Your task to perform on an android device: Go to Wikipedia Image 0: 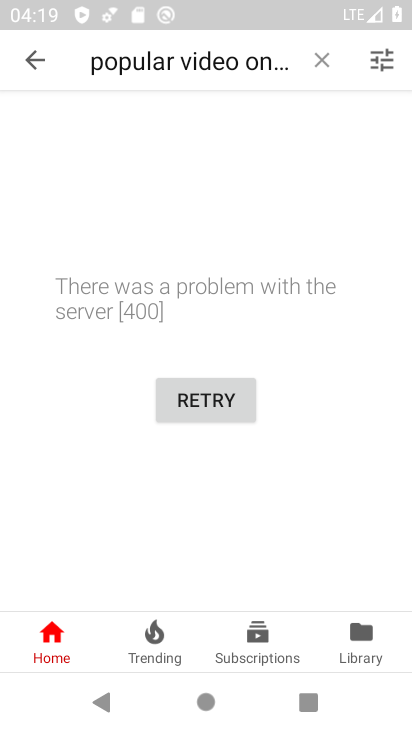
Step 0: press home button
Your task to perform on an android device: Go to Wikipedia Image 1: 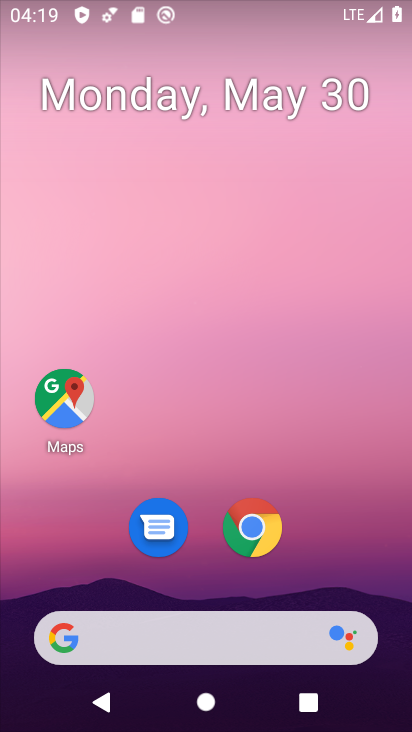
Step 1: click (250, 528)
Your task to perform on an android device: Go to Wikipedia Image 2: 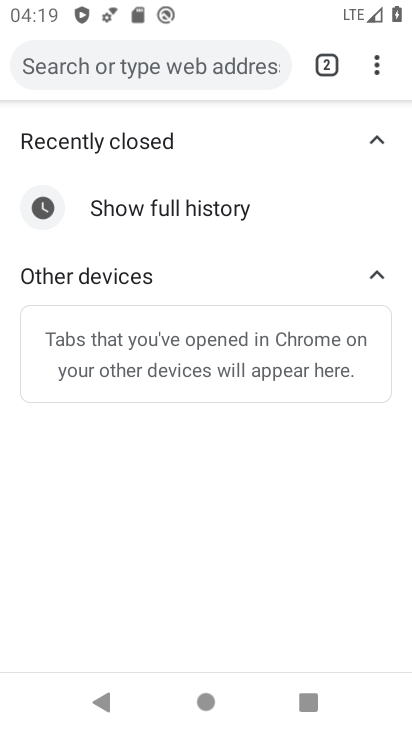
Step 2: click (378, 71)
Your task to perform on an android device: Go to Wikipedia Image 3: 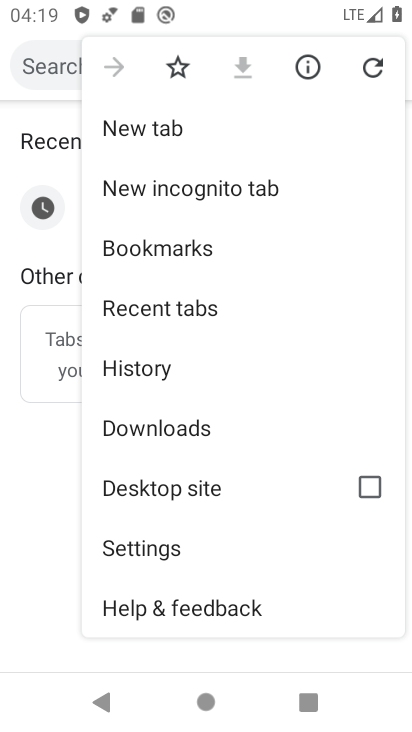
Step 3: click (142, 135)
Your task to perform on an android device: Go to Wikipedia Image 4: 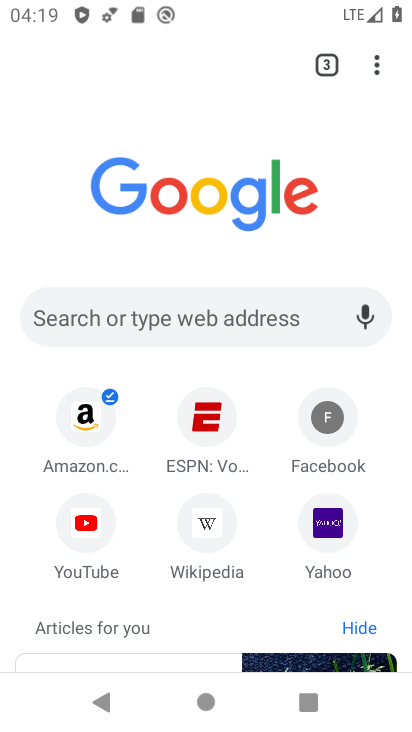
Step 4: click (206, 526)
Your task to perform on an android device: Go to Wikipedia Image 5: 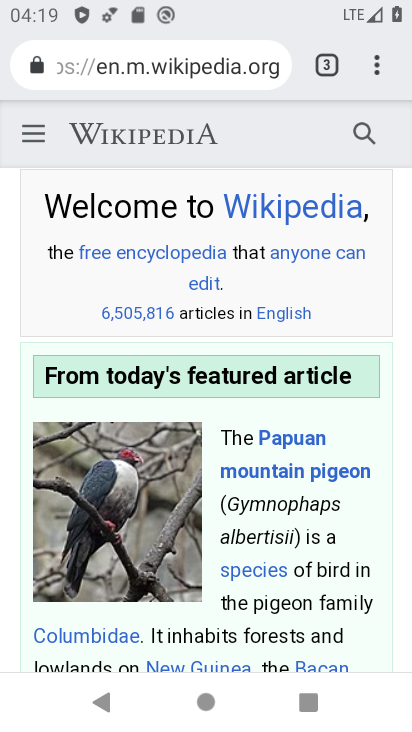
Step 5: task complete